Your task to perform on an android device: turn off priority inbox in the gmail app Image 0: 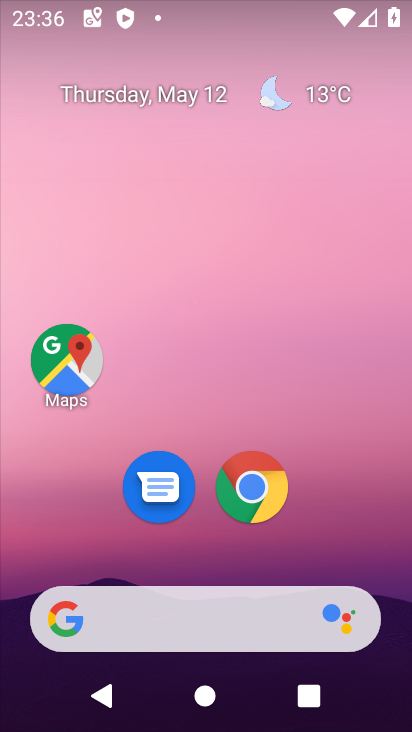
Step 0: drag from (183, 536) to (203, 125)
Your task to perform on an android device: turn off priority inbox in the gmail app Image 1: 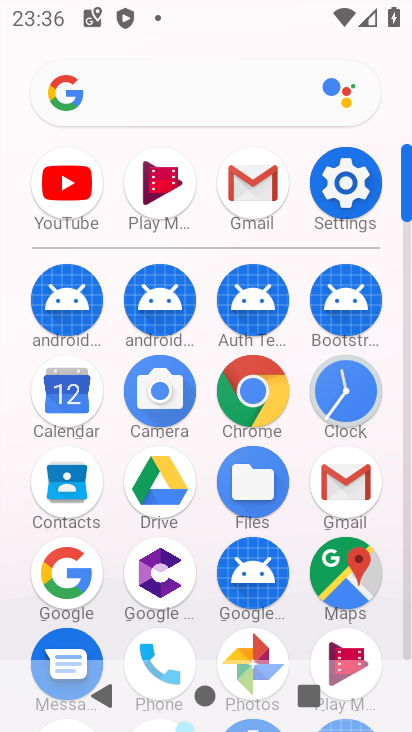
Step 1: click (240, 177)
Your task to perform on an android device: turn off priority inbox in the gmail app Image 2: 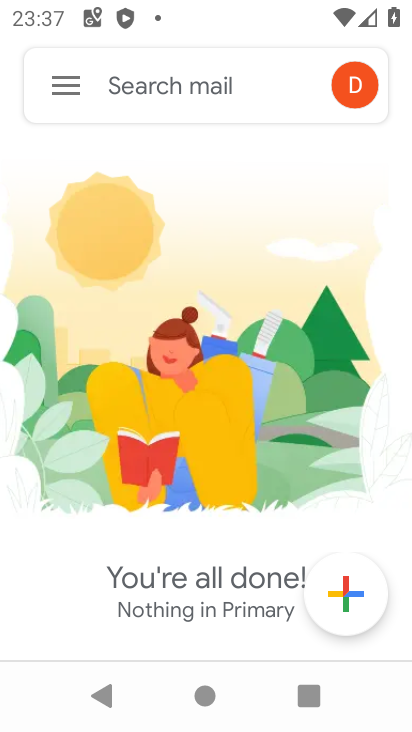
Step 2: click (70, 100)
Your task to perform on an android device: turn off priority inbox in the gmail app Image 3: 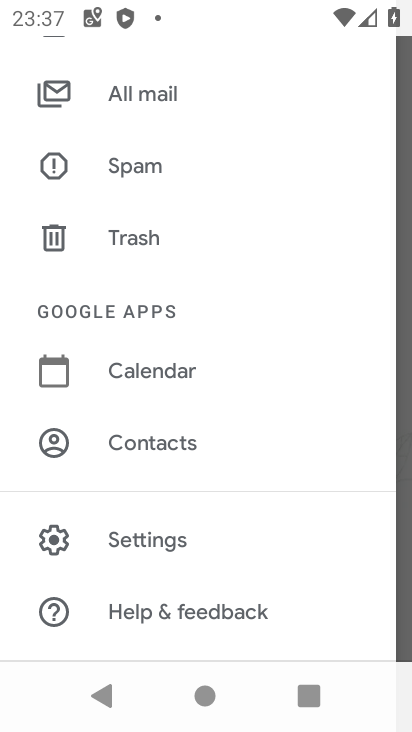
Step 3: click (164, 560)
Your task to perform on an android device: turn off priority inbox in the gmail app Image 4: 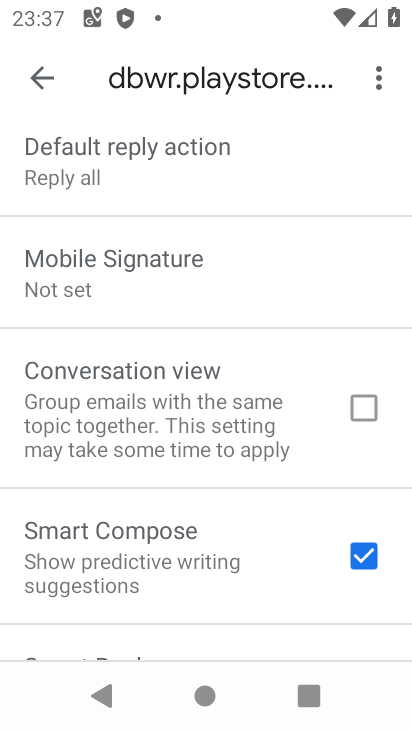
Step 4: drag from (140, 552) to (224, 141)
Your task to perform on an android device: turn off priority inbox in the gmail app Image 5: 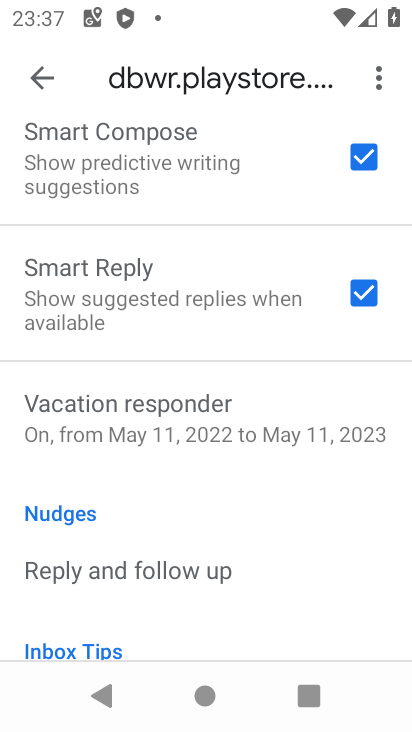
Step 5: drag from (211, 512) to (195, 264)
Your task to perform on an android device: turn off priority inbox in the gmail app Image 6: 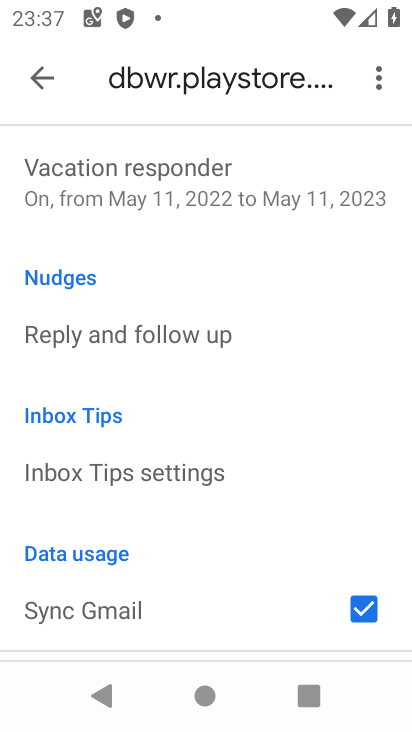
Step 6: drag from (200, 172) to (227, 724)
Your task to perform on an android device: turn off priority inbox in the gmail app Image 7: 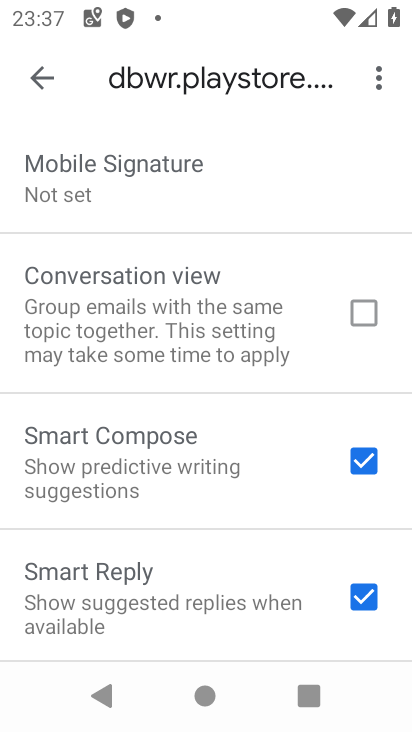
Step 7: drag from (257, 246) to (262, 637)
Your task to perform on an android device: turn off priority inbox in the gmail app Image 8: 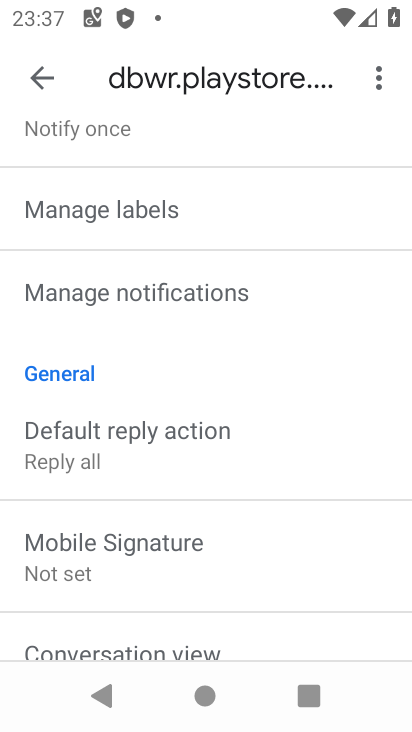
Step 8: drag from (176, 220) to (224, 600)
Your task to perform on an android device: turn off priority inbox in the gmail app Image 9: 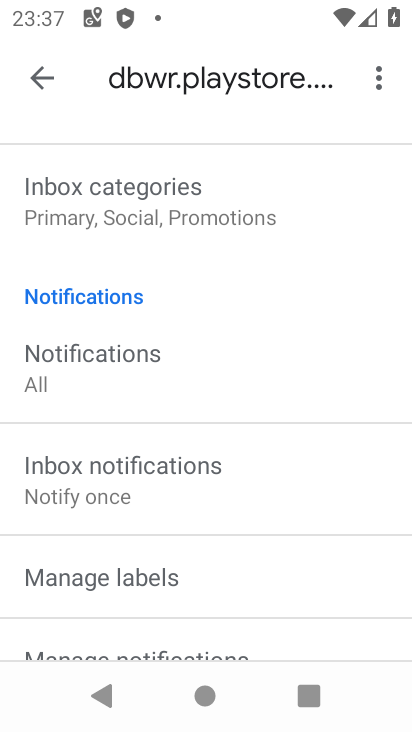
Step 9: drag from (183, 266) to (221, 542)
Your task to perform on an android device: turn off priority inbox in the gmail app Image 10: 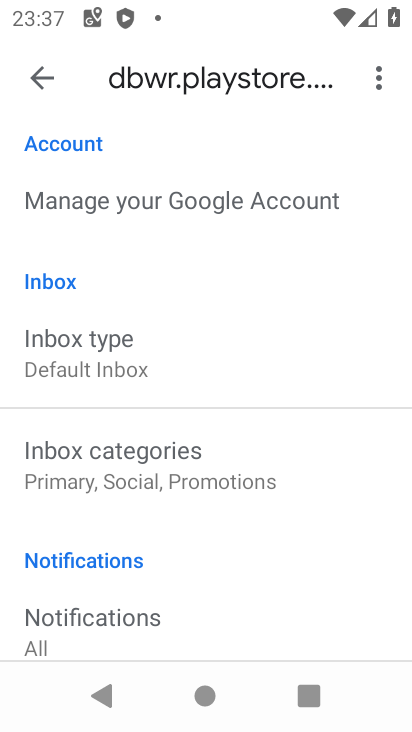
Step 10: click (53, 360)
Your task to perform on an android device: turn off priority inbox in the gmail app Image 11: 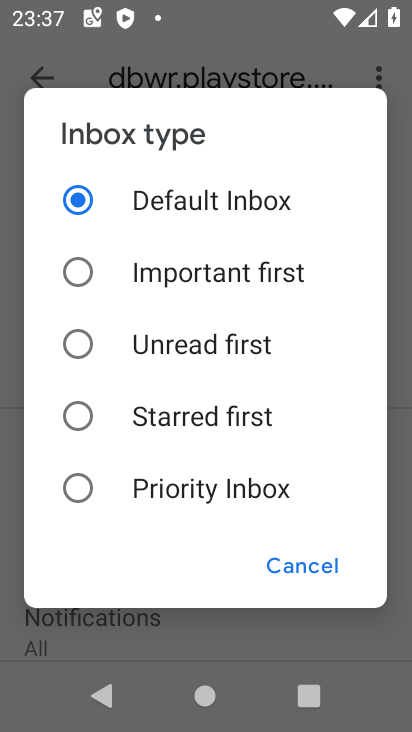
Step 11: task complete